Your task to perform on an android device: Go to eBay Image 0: 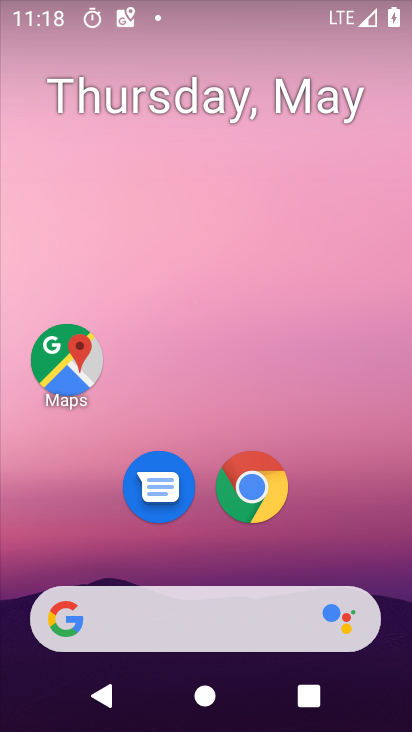
Step 0: drag from (158, 659) to (236, 185)
Your task to perform on an android device: Go to eBay Image 1: 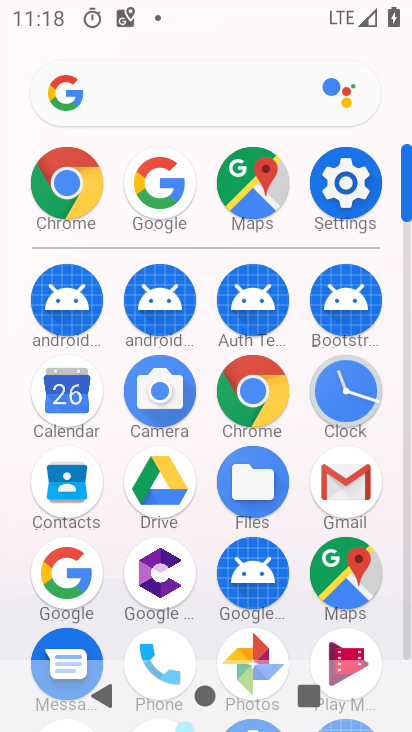
Step 1: click (68, 205)
Your task to perform on an android device: Go to eBay Image 2: 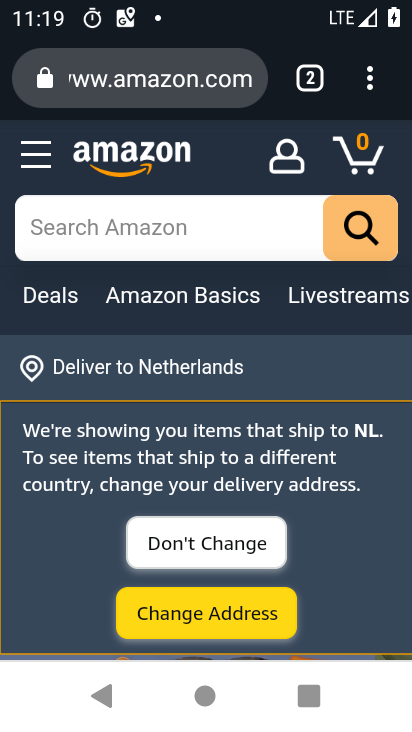
Step 2: click (176, 88)
Your task to perform on an android device: Go to eBay Image 3: 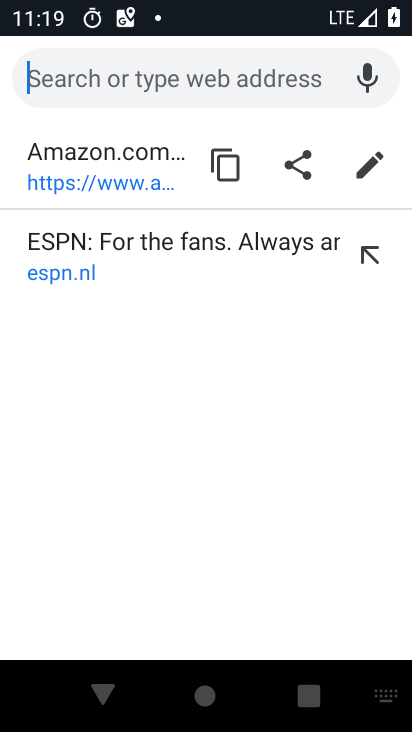
Step 3: type "ebay"
Your task to perform on an android device: Go to eBay Image 4: 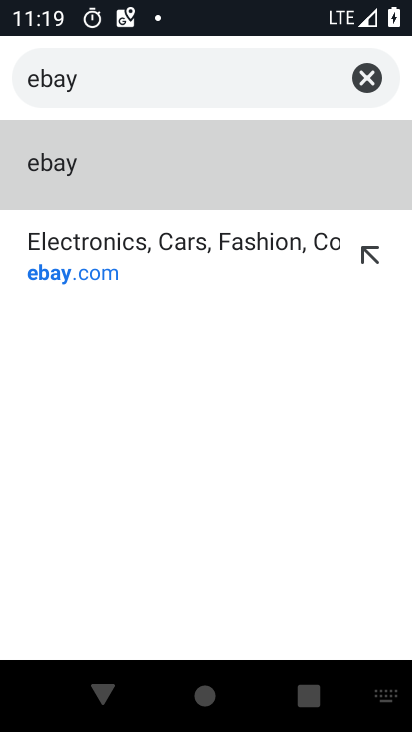
Step 4: click (196, 251)
Your task to perform on an android device: Go to eBay Image 5: 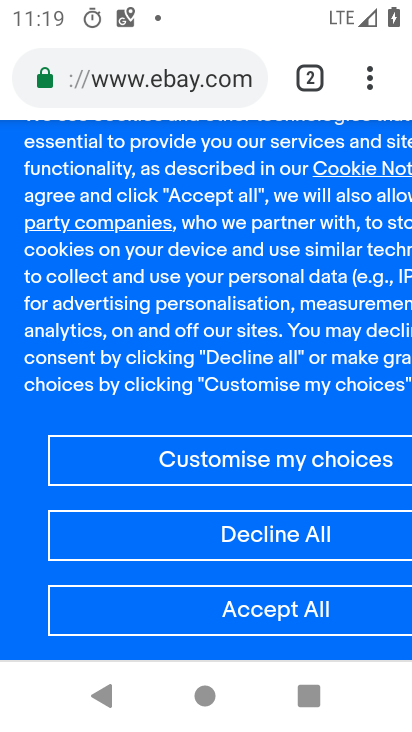
Step 5: task complete